Your task to perform on an android device: Open Amazon Image 0: 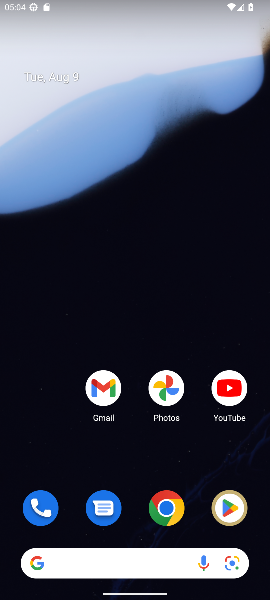
Step 0: click (172, 511)
Your task to perform on an android device: Open Amazon Image 1: 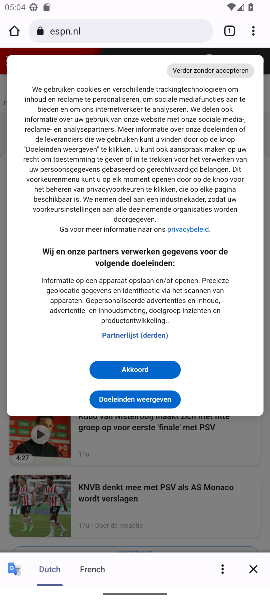
Step 1: click (92, 30)
Your task to perform on an android device: Open Amazon Image 2: 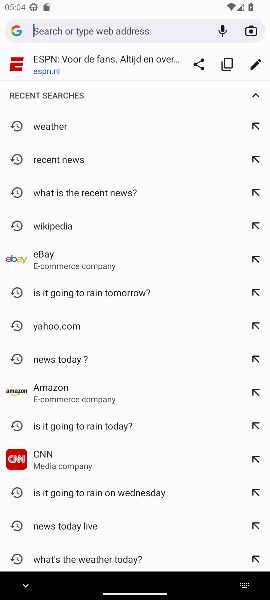
Step 2: type "amazon"
Your task to perform on an android device: Open Amazon Image 3: 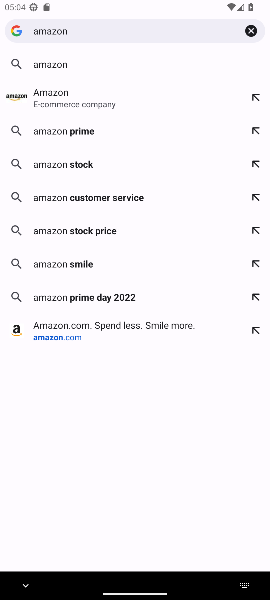
Step 3: click (66, 99)
Your task to perform on an android device: Open Amazon Image 4: 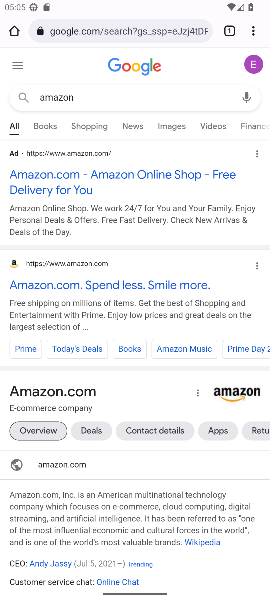
Step 4: click (46, 175)
Your task to perform on an android device: Open Amazon Image 5: 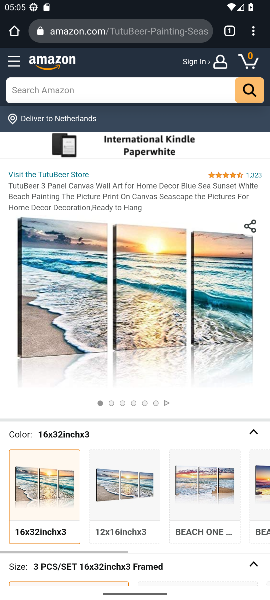
Step 5: task complete